Your task to perform on an android device: allow notifications from all sites in the chrome app Image 0: 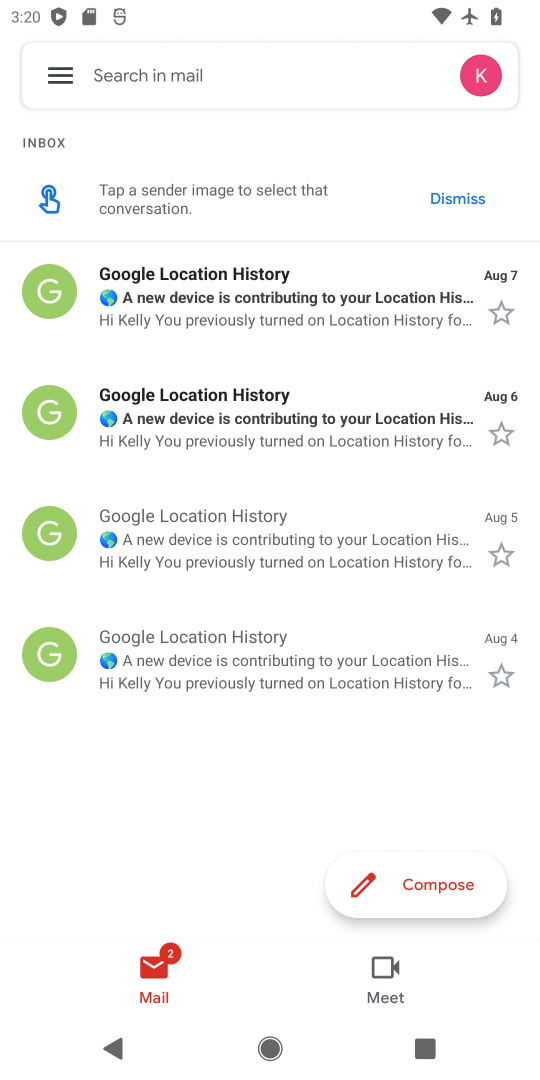
Step 0: press home button
Your task to perform on an android device: allow notifications from all sites in the chrome app Image 1: 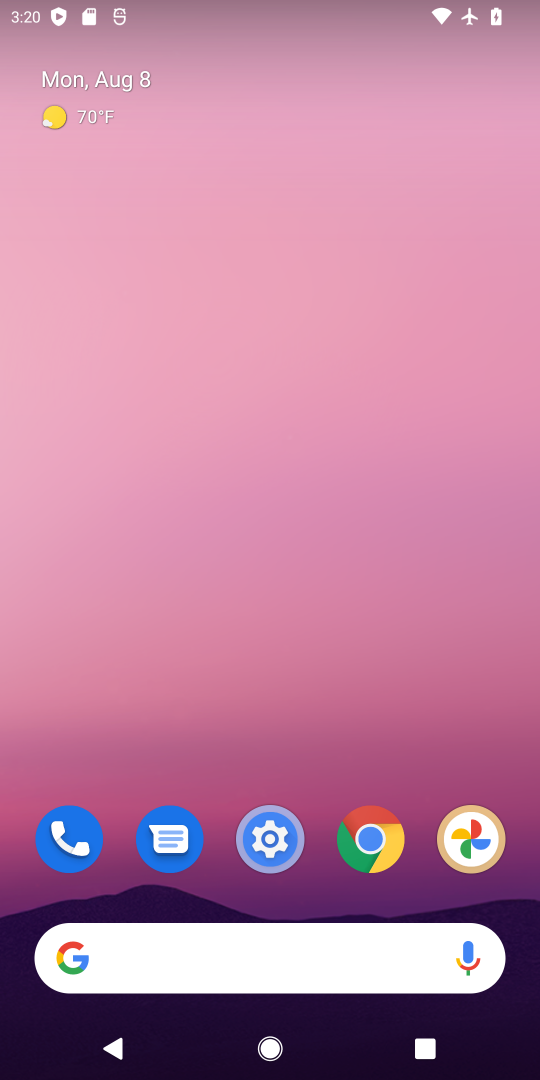
Step 1: drag from (420, 682) to (450, 237)
Your task to perform on an android device: allow notifications from all sites in the chrome app Image 2: 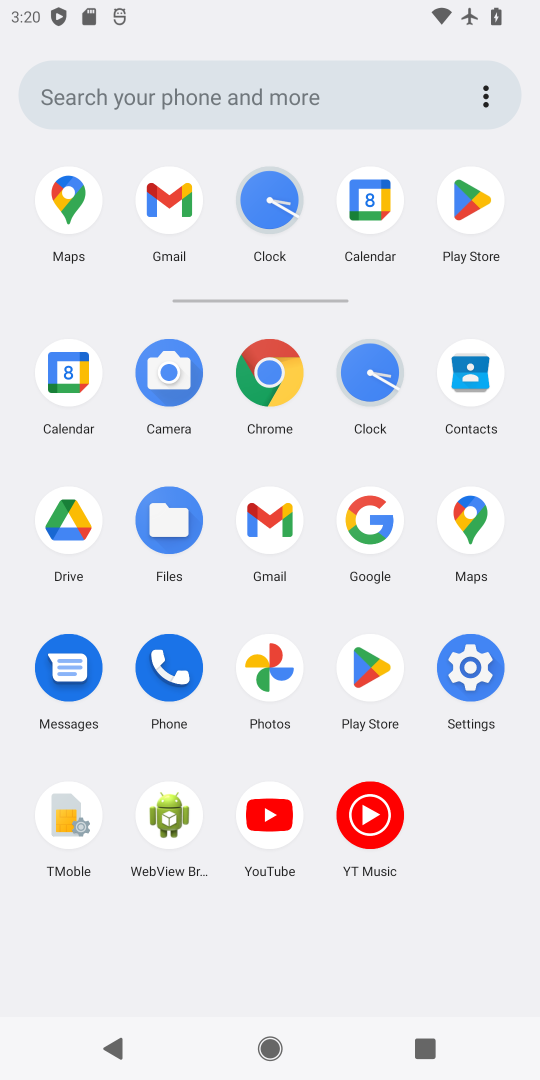
Step 2: click (274, 380)
Your task to perform on an android device: allow notifications from all sites in the chrome app Image 3: 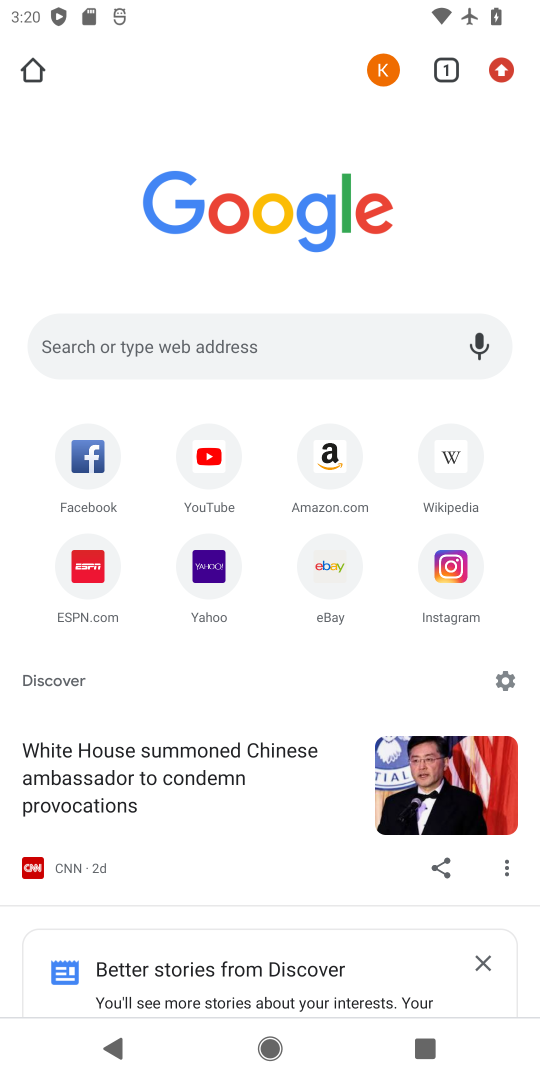
Step 3: click (498, 65)
Your task to perform on an android device: allow notifications from all sites in the chrome app Image 4: 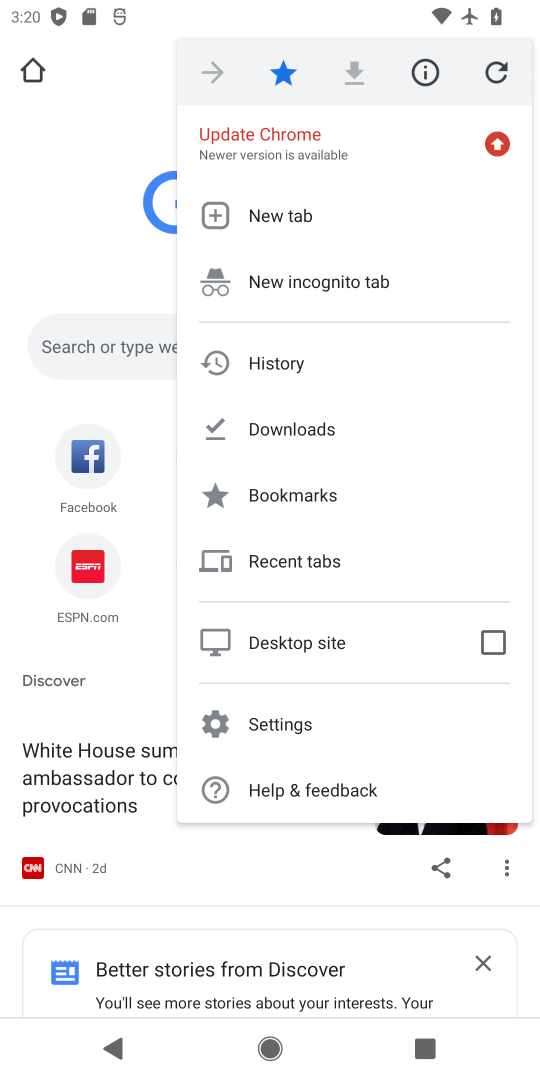
Step 4: click (298, 731)
Your task to perform on an android device: allow notifications from all sites in the chrome app Image 5: 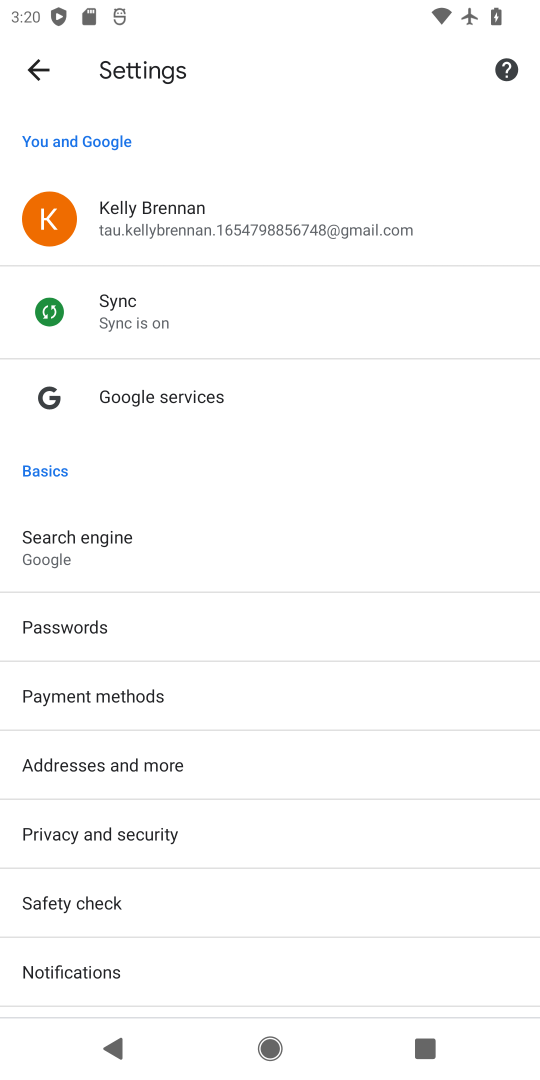
Step 5: drag from (419, 778) to (431, 666)
Your task to perform on an android device: allow notifications from all sites in the chrome app Image 6: 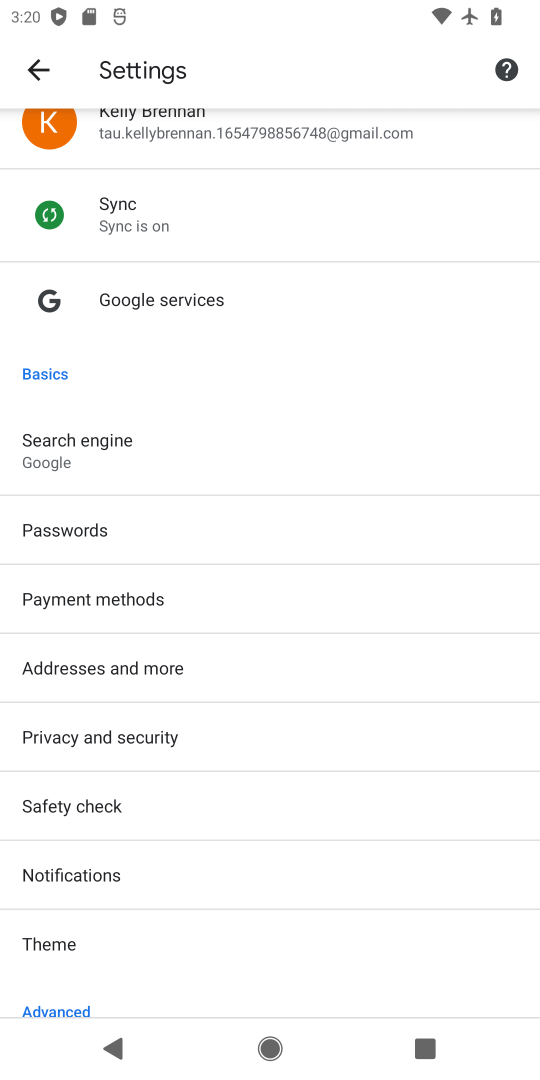
Step 6: drag from (412, 858) to (426, 713)
Your task to perform on an android device: allow notifications from all sites in the chrome app Image 7: 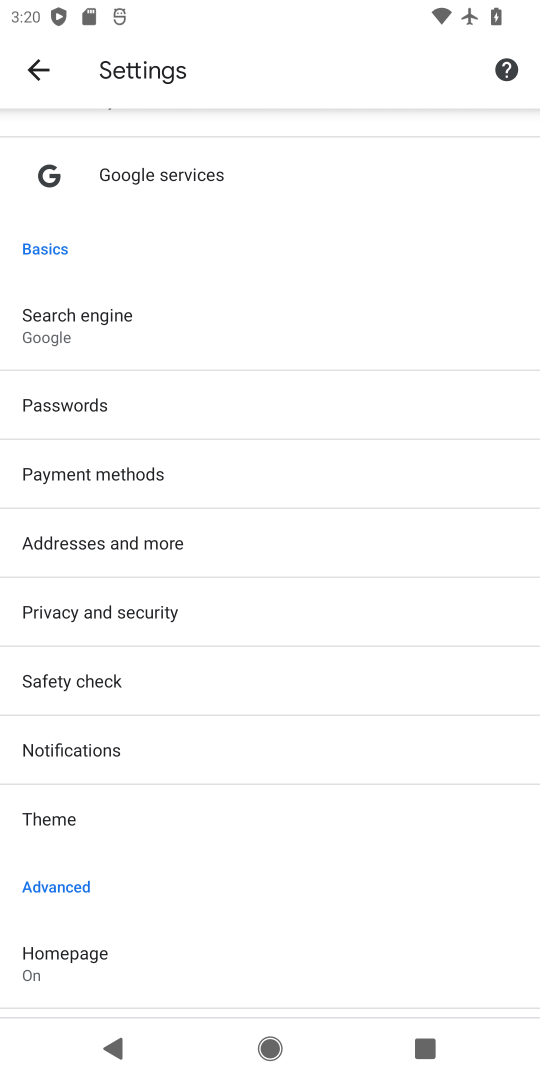
Step 7: drag from (399, 880) to (412, 653)
Your task to perform on an android device: allow notifications from all sites in the chrome app Image 8: 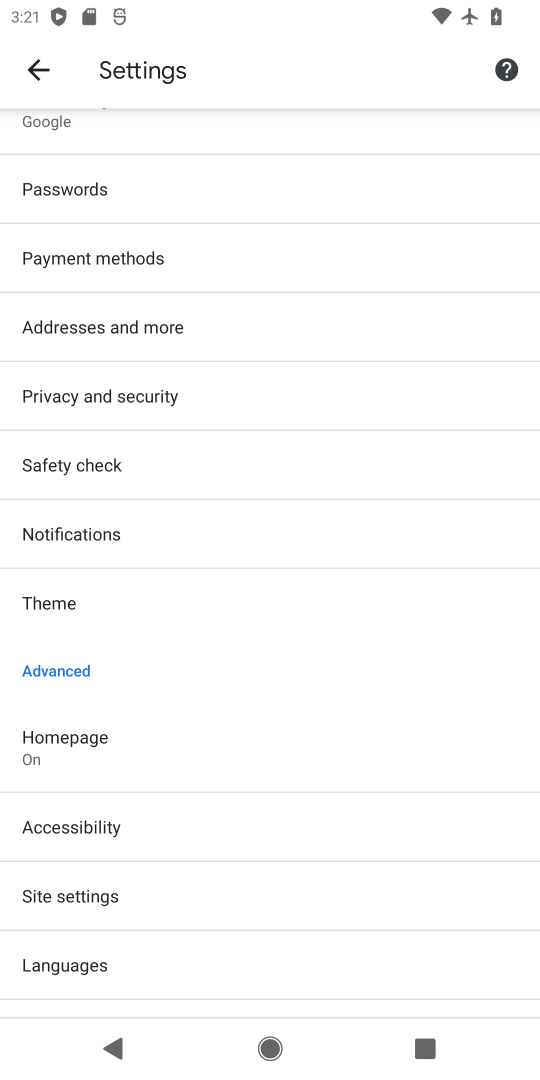
Step 8: drag from (373, 854) to (397, 598)
Your task to perform on an android device: allow notifications from all sites in the chrome app Image 9: 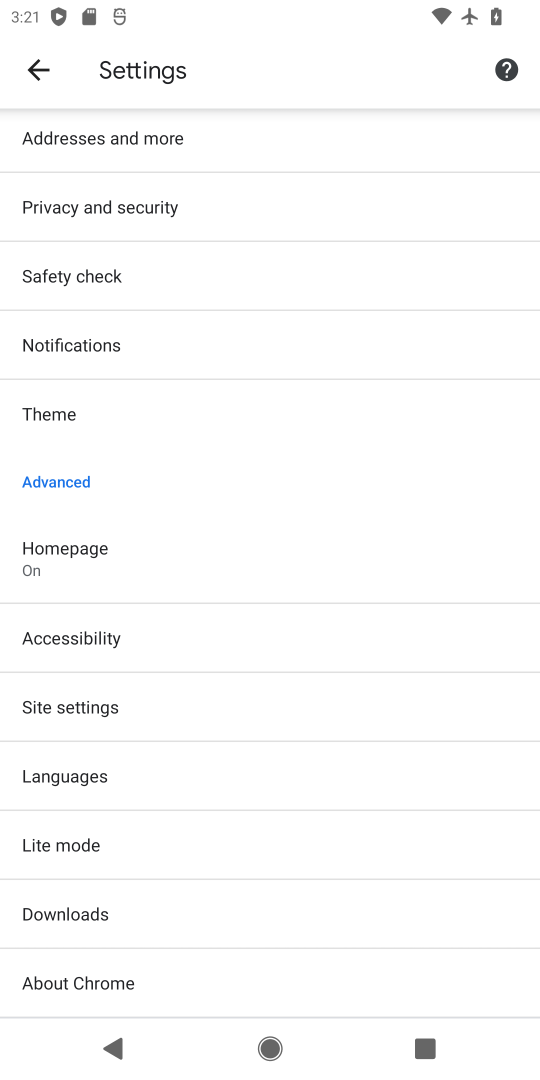
Step 9: drag from (362, 806) to (391, 573)
Your task to perform on an android device: allow notifications from all sites in the chrome app Image 10: 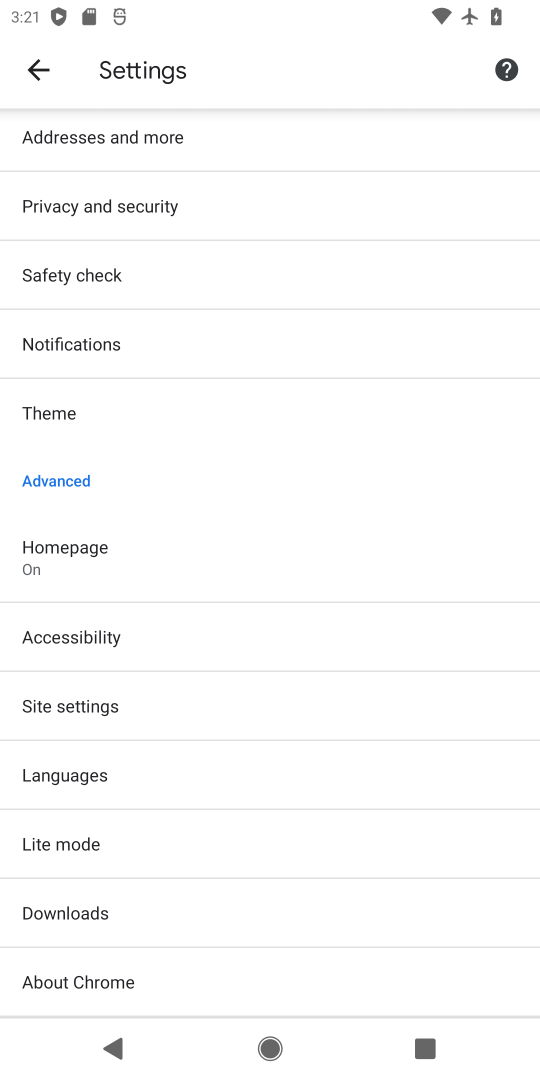
Step 10: click (263, 718)
Your task to perform on an android device: allow notifications from all sites in the chrome app Image 11: 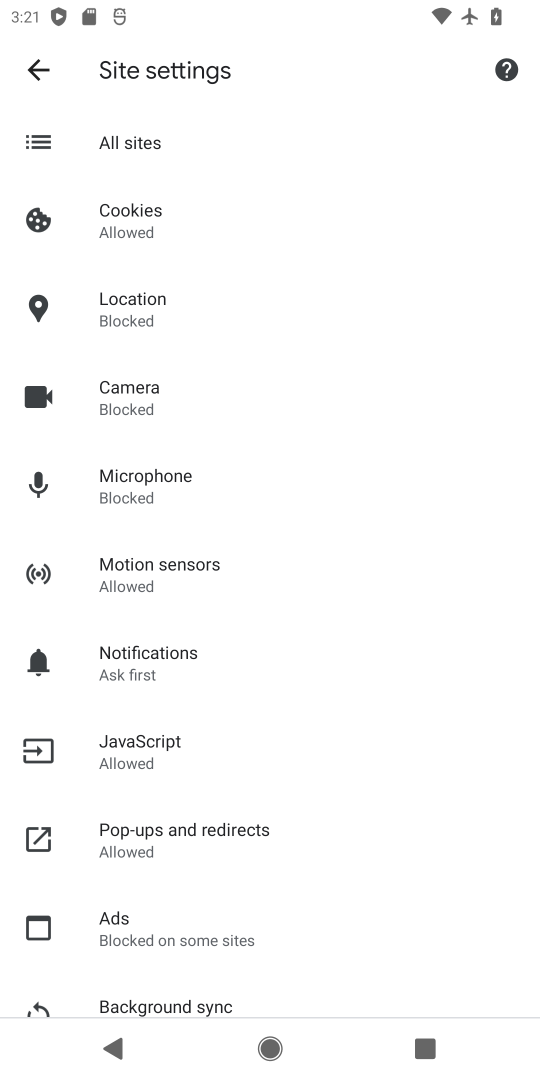
Step 11: drag from (363, 771) to (364, 636)
Your task to perform on an android device: allow notifications from all sites in the chrome app Image 12: 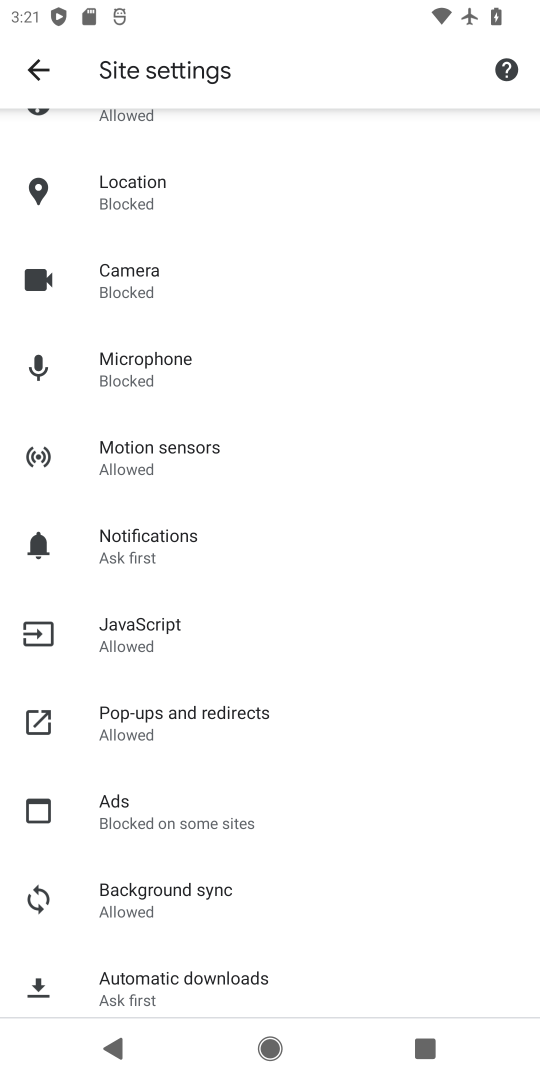
Step 12: drag from (367, 817) to (394, 639)
Your task to perform on an android device: allow notifications from all sites in the chrome app Image 13: 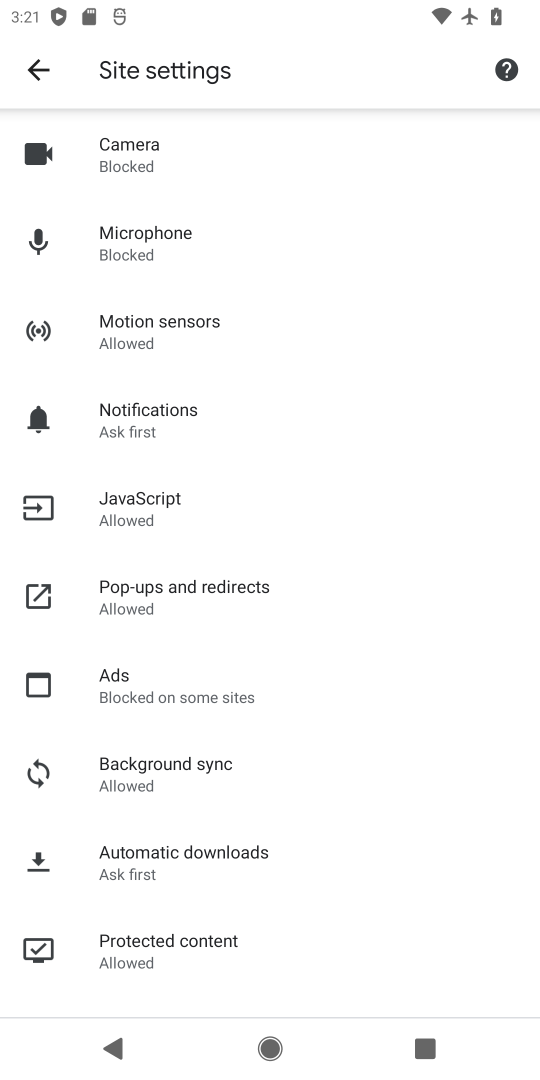
Step 13: drag from (403, 837) to (409, 668)
Your task to perform on an android device: allow notifications from all sites in the chrome app Image 14: 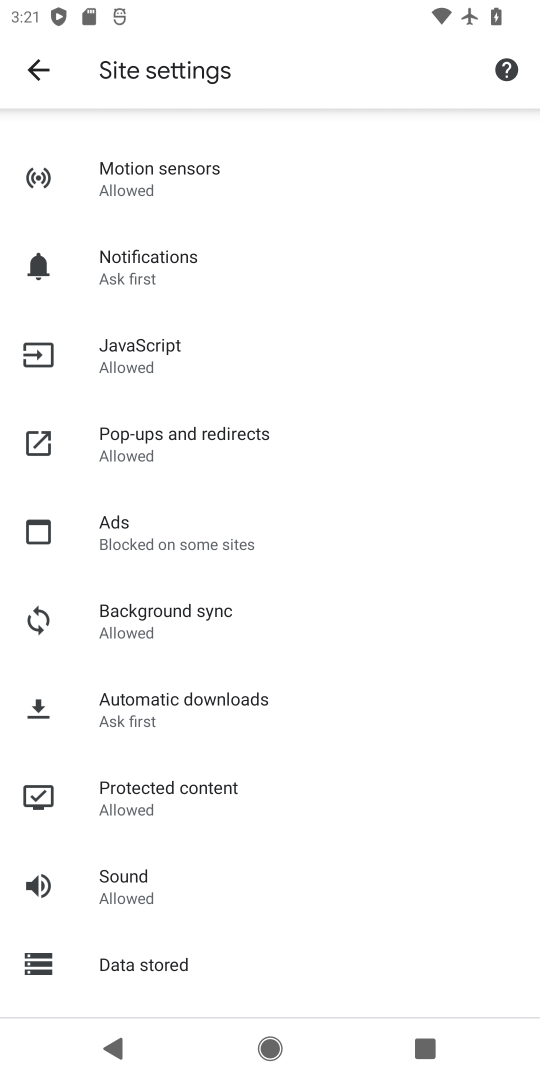
Step 14: drag from (399, 471) to (403, 666)
Your task to perform on an android device: allow notifications from all sites in the chrome app Image 15: 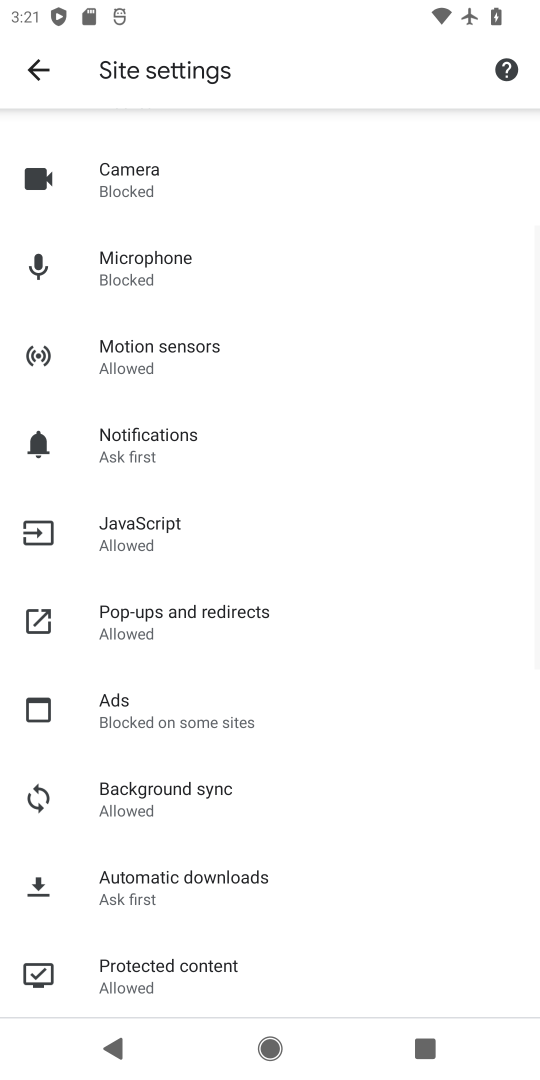
Step 15: drag from (402, 409) to (410, 600)
Your task to perform on an android device: allow notifications from all sites in the chrome app Image 16: 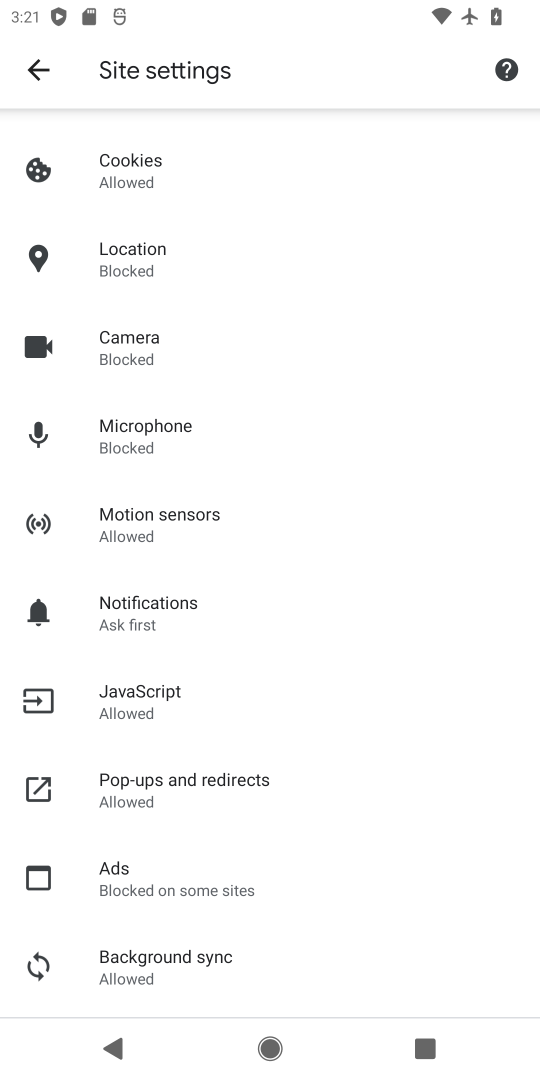
Step 16: drag from (388, 349) to (391, 506)
Your task to perform on an android device: allow notifications from all sites in the chrome app Image 17: 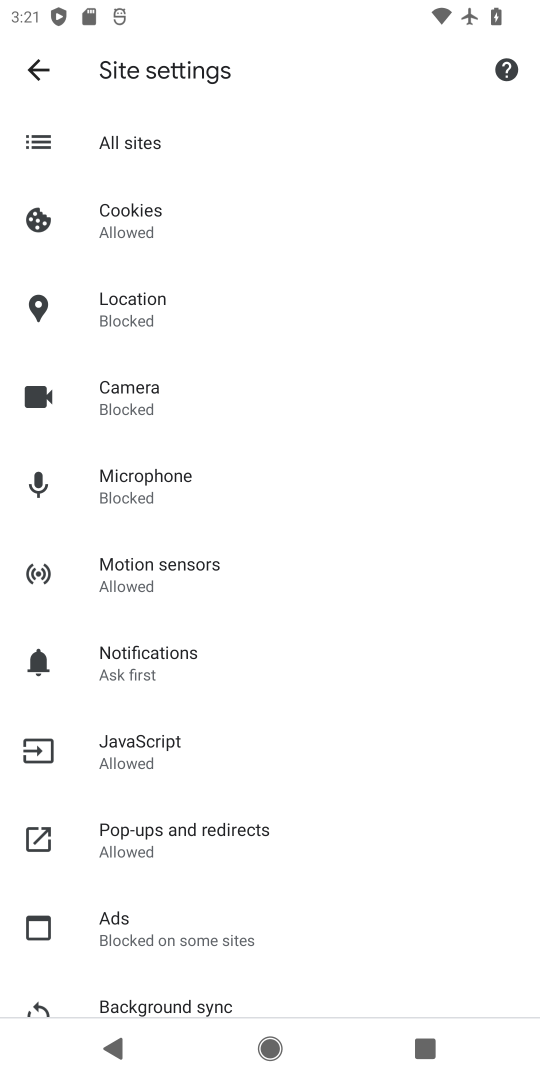
Step 17: click (283, 673)
Your task to perform on an android device: allow notifications from all sites in the chrome app Image 18: 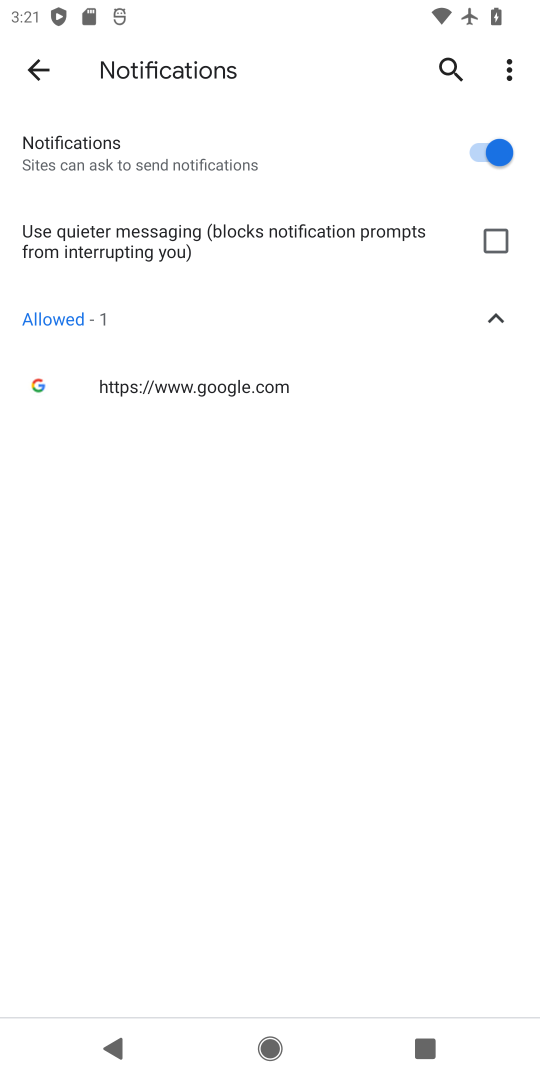
Step 18: task complete